Your task to perform on an android device: check google app version Image 0: 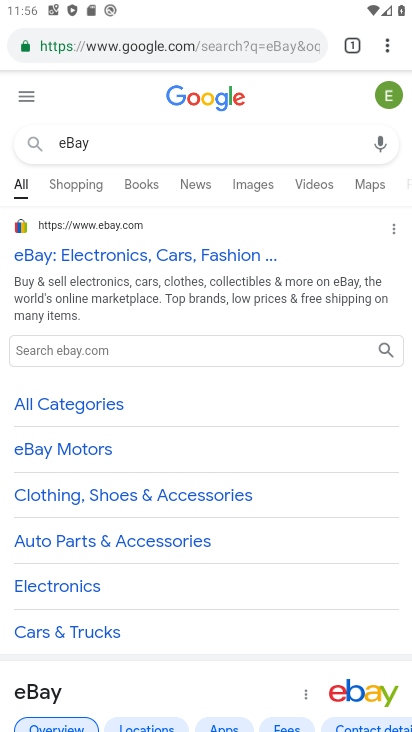
Step 0: press home button
Your task to perform on an android device: check google app version Image 1: 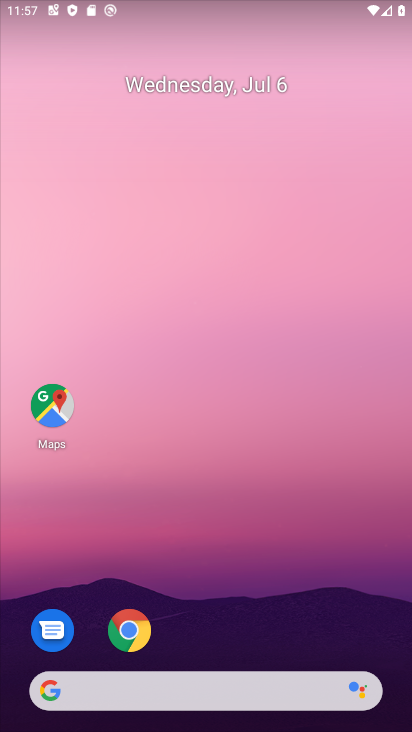
Step 1: click (157, 696)
Your task to perform on an android device: check google app version Image 2: 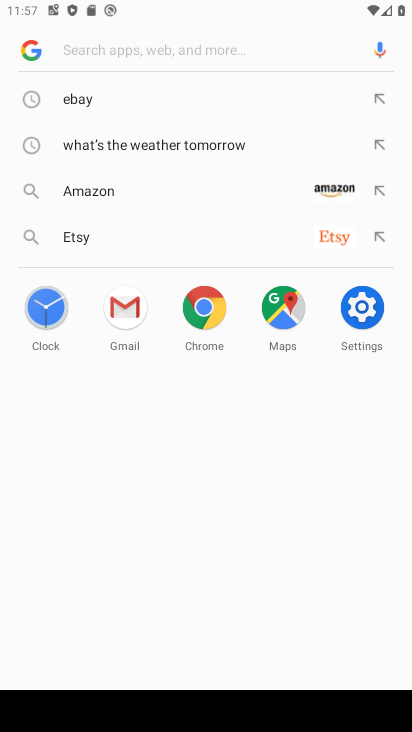
Step 2: click (30, 47)
Your task to perform on an android device: check google app version Image 3: 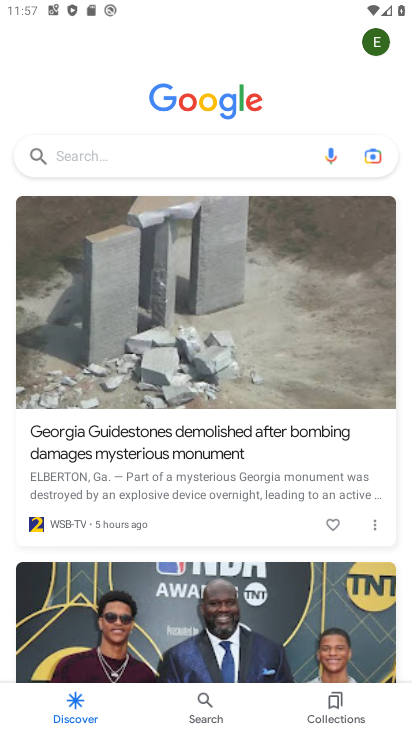
Step 3: click (379, 40)
Your task to perform on an android device: check google app version Image 4: 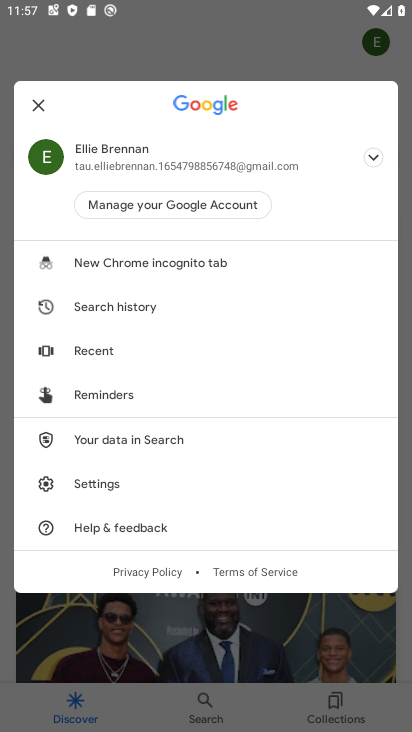
Step 4: click (111, 493)
Your task to perform on an android device: check google app version Image 5: 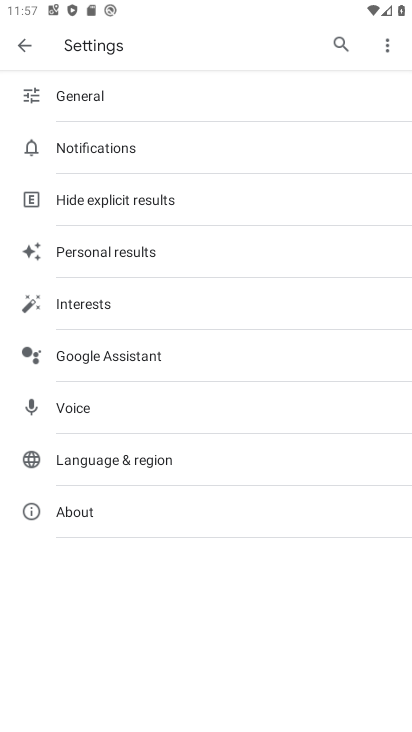
Step 5: click (109, 519)
Your task to perform on an android device: check google app version Image 6: 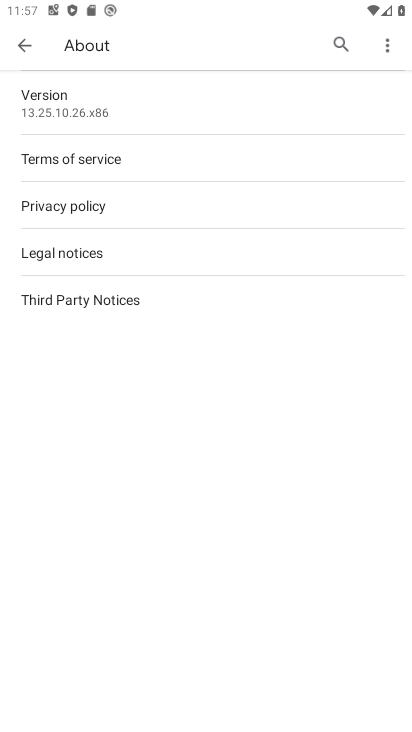
Step 6: task complete